Your task to perform on an android device: toggle airplane mode Image 0: 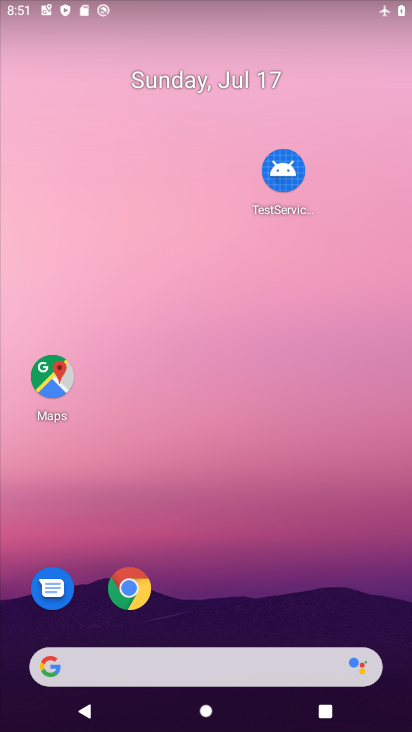
Step 0: drag from (211, 621) to (262, 183)
Your task to perform on an android device: toggle airplane mode Image 1: 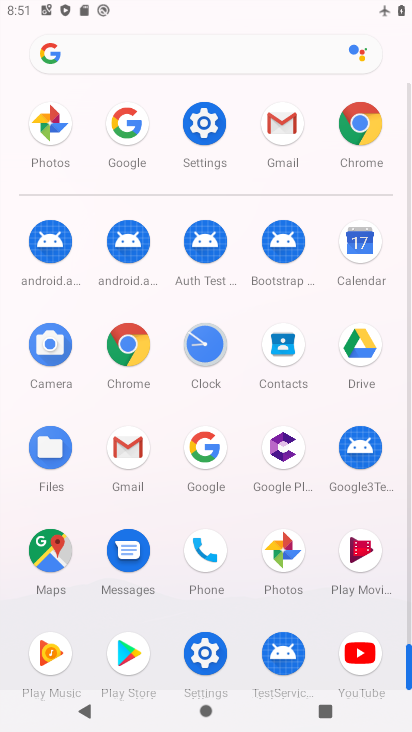
Step 1: click (194, 130)
Your task to perform on an android device: toggle airplane mode Image 2: 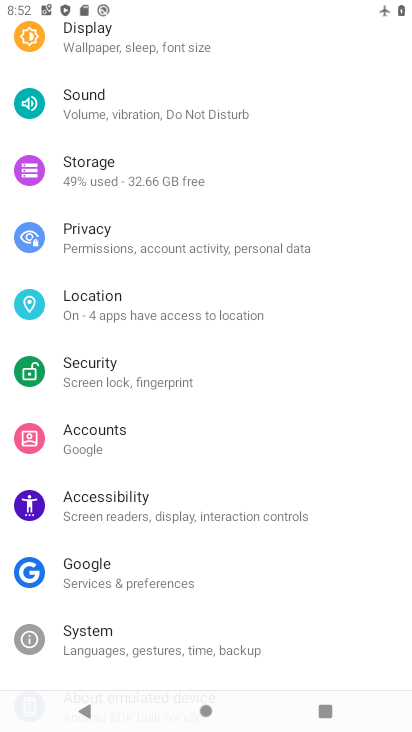
Step 2: drag from (145, 291) to (126, 685)
Your task to perform on an android device: toggle airplane mode Image 3: 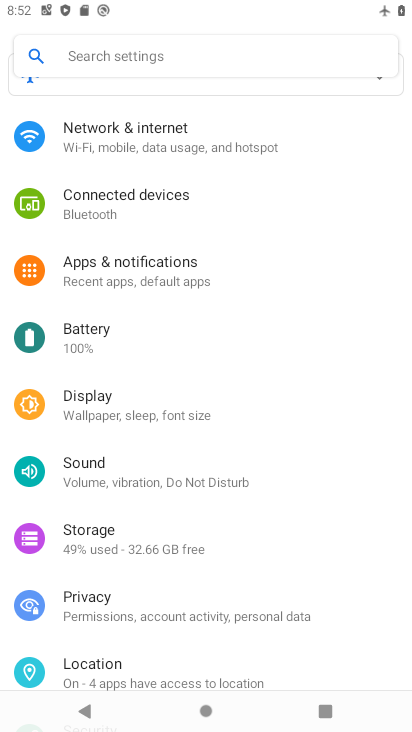
Step 3: drag from (185, 186) to (191, 654)
Your task to perform on an android device: toggle airplane mode Image 4: 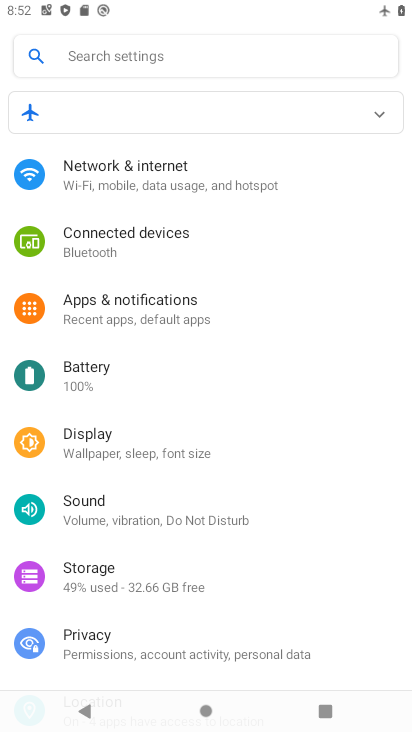
Step 4: click (162, 179)
Your task to perform on an android device: toggle airplane mode Image 5: 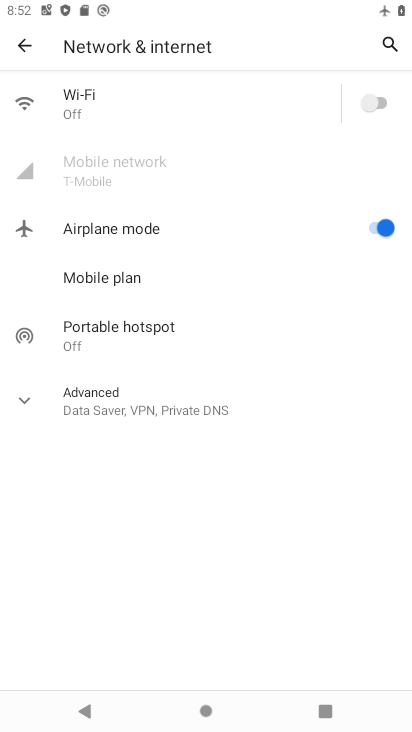
Step 5: click (185, 241)
Your task to perform on an android device: toggle airplane mode Image 6: 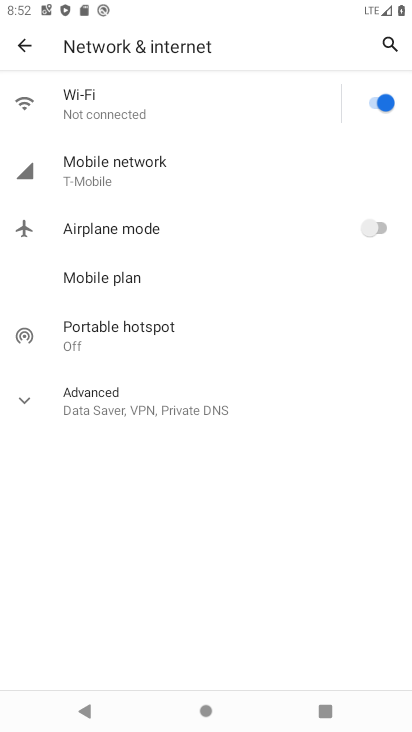
Step 6: task complete